Your task to perform on an android device: Open calendar and show me the second week of next month Image 0: 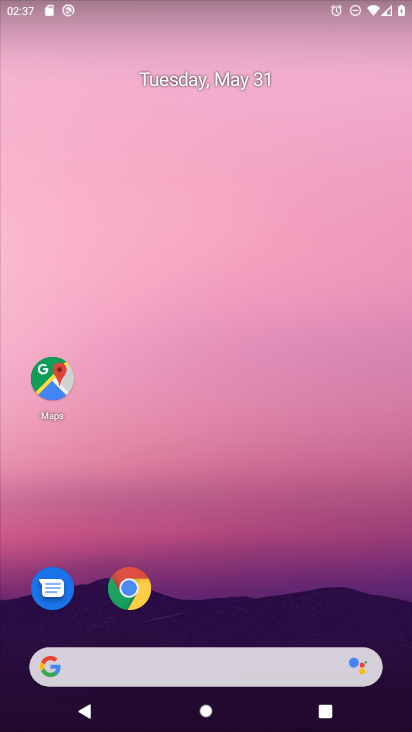
Step 0: drag from (331, 633) to (335, 8)
Your task to perform on an android device: Open calendar and show me the second week of next month Image 1: 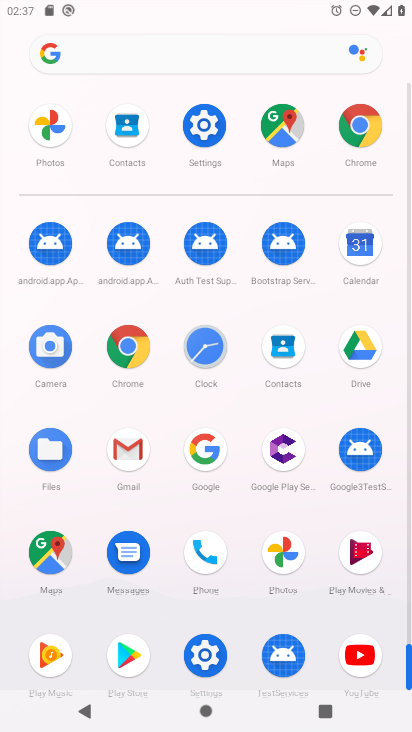
Step 1: click (348, 246)
Your task to perform on an android device: Open calendar and show me the second week of next month Image 2: 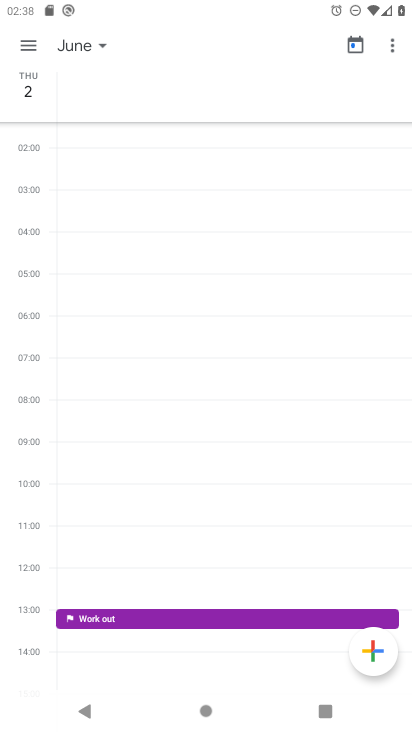
Step 2: press home button
Your task to perform on an android device: Open calendar and show me the second week of next month Image 3: 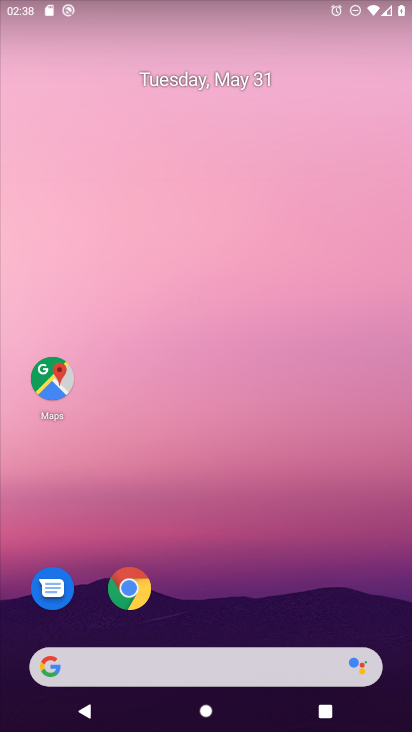
Step 3: drag from (318, 658) to (316, 53)
Your task to perform on an android device: Open calendar and show me the second week of next month Image 4: 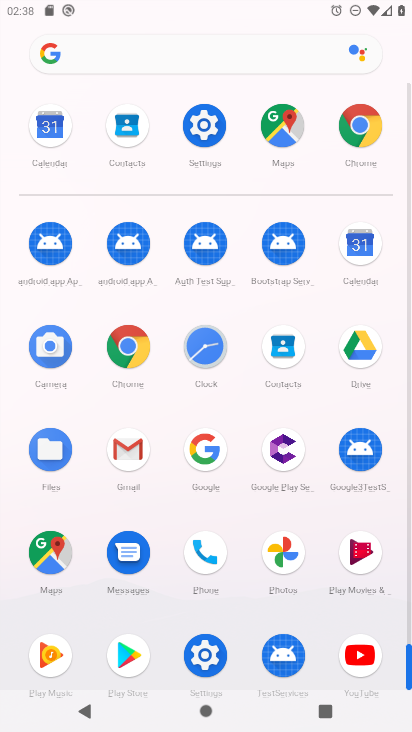
Step 4: click (366, 246)
Your task to perform on an android device: Open calendar and show me the second week of next month Image 5: 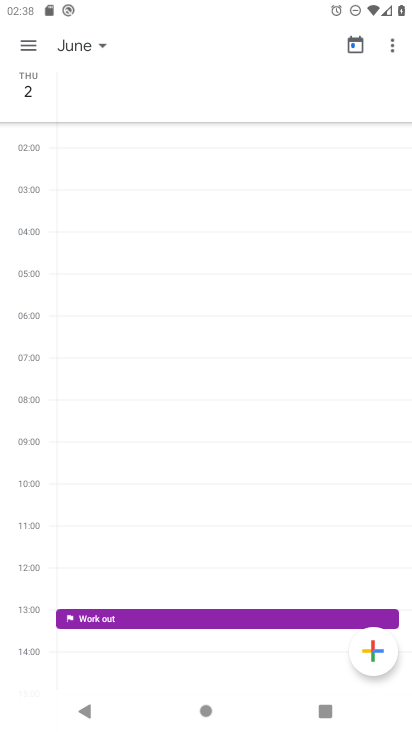
Step 5: click (89, 47)
Your task to perform on an android device: Open calendar and show me the second week of next month Image 6: 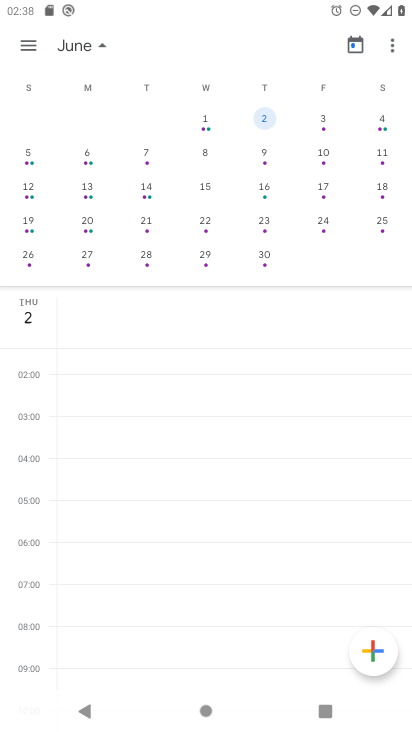
Step 6: click (263, 150)
Your task to perform on an android device: Open calendar and show me the second week of next month Image 7: 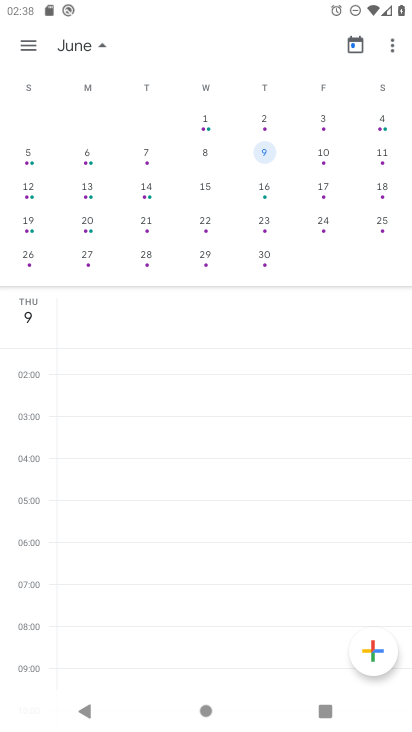
Step 7: click (29, 48)
Your task to perform on an android device: Open calendar and show me the second week of next month Image 8: 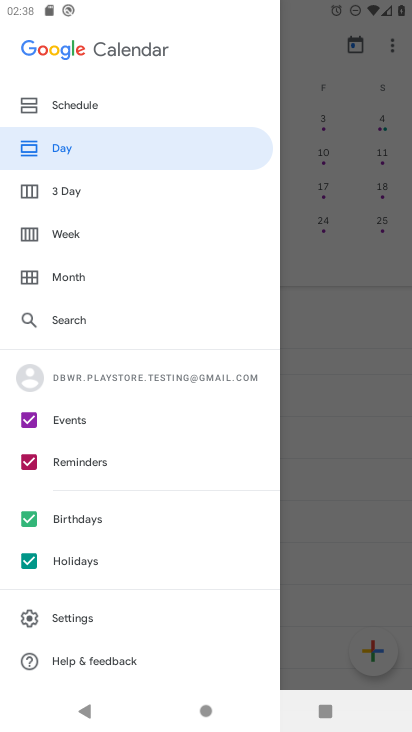
Step 8: click (72, 234)
Your task to perform on an android device: Open calendar and show me the second week of next month Image 9: 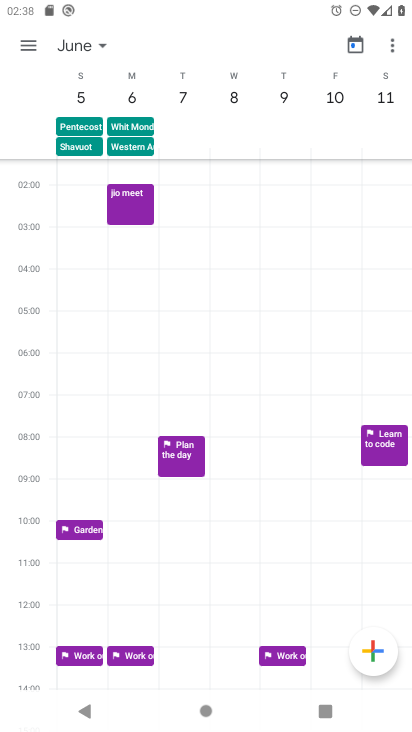
Step 9: task complete